Your task to perform on an android device: Is it going to rain this weekend? Image 0: 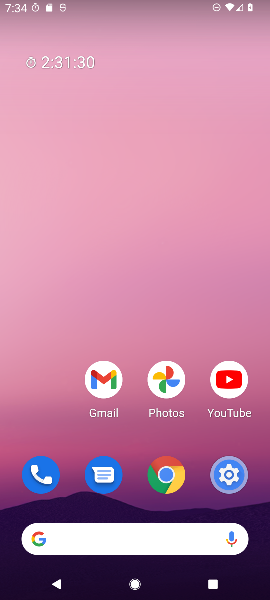
Step 0: press home button
Your task to perform on an android device: Is it going to rain this weekend? Image 1: 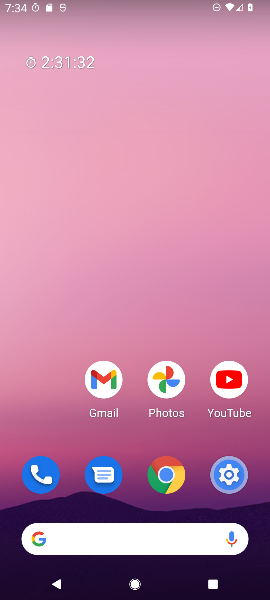
Step 1: click (144, 540)
Your task to perform on an android device: Is it going to rain this weekend? Image 2: 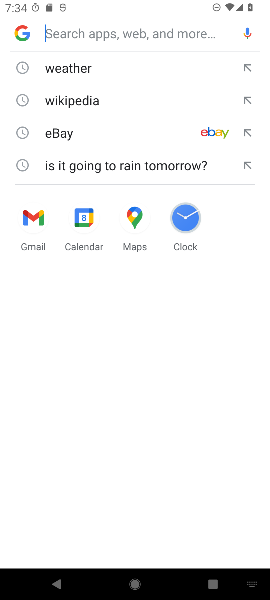
Step 2: click (134, 25)
Your task to perform on an android device: Is it going to rain this weekend? Image 3: 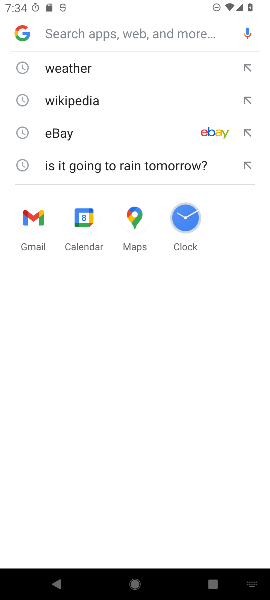
Step 3: click (95, 60)
Your task to perform on an android device: Is it going to rain this weekend? Image 4: 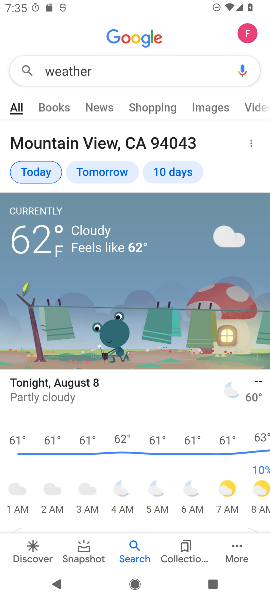
Step 4: click (176, 171)
Your task to perform on an android device: Is it going to rain this weekend? Image 5: 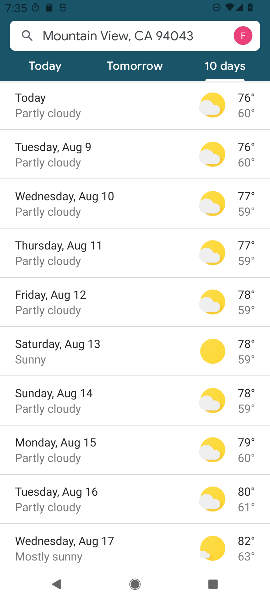
Step 5: click (70, 356)
Your task to perform on an android device: Is it going to rain this weekend? Image 6: 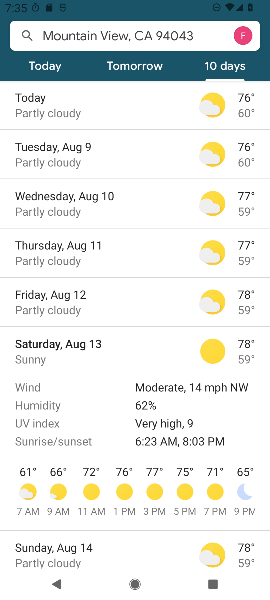
Step 6: task complete